Your task to perform on an android device: change your default location settings in chrome Image 0: 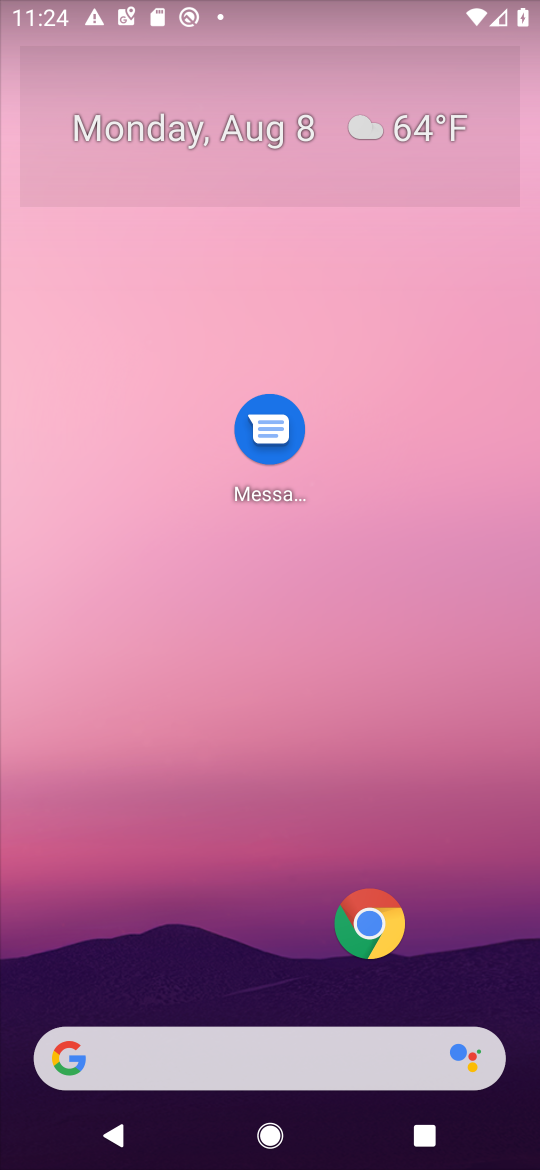
Step 0: click (361, 934)
Your task to perform on an android device: change your default location settings in chrome Image 1: 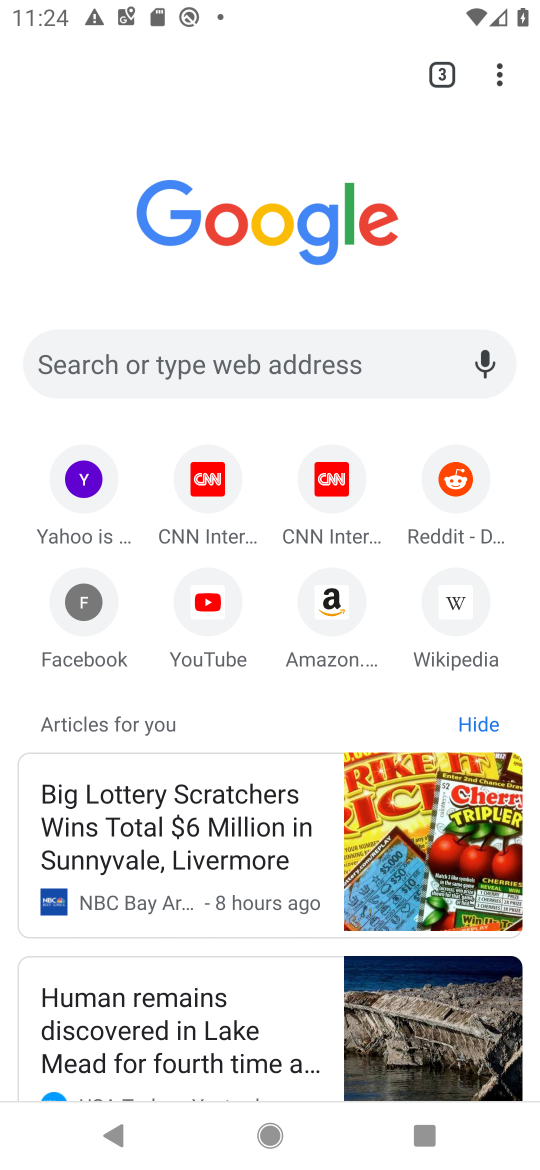
Step 1: click (502, 73)
Your task to perform on an android device: change your default location settings in chrome Image 2: 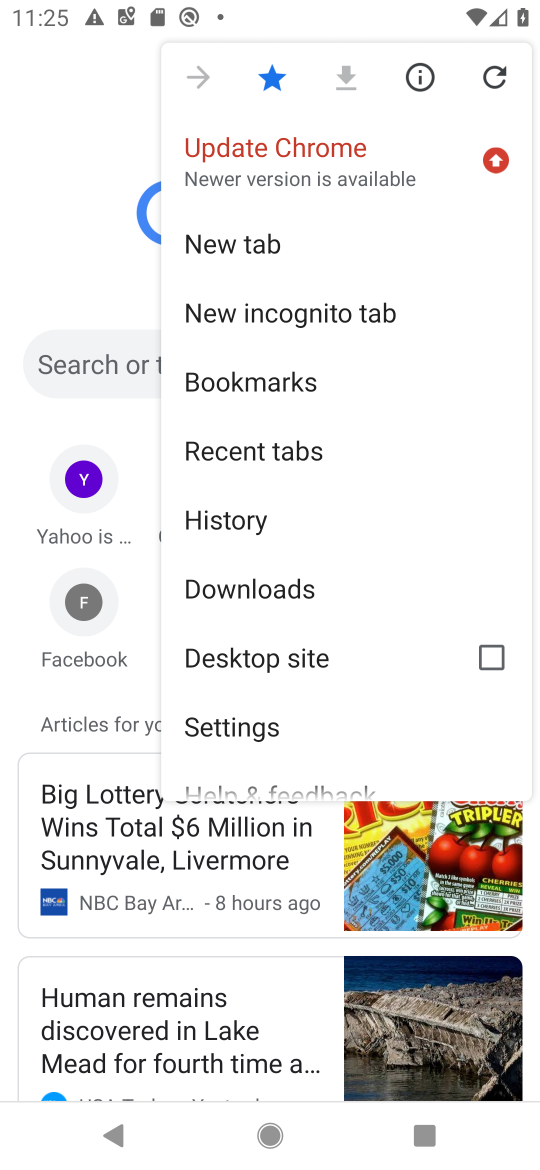
Step 2: click (257, 712)
Your task to perform on an android device: change your default location settings in chrome Image 3: 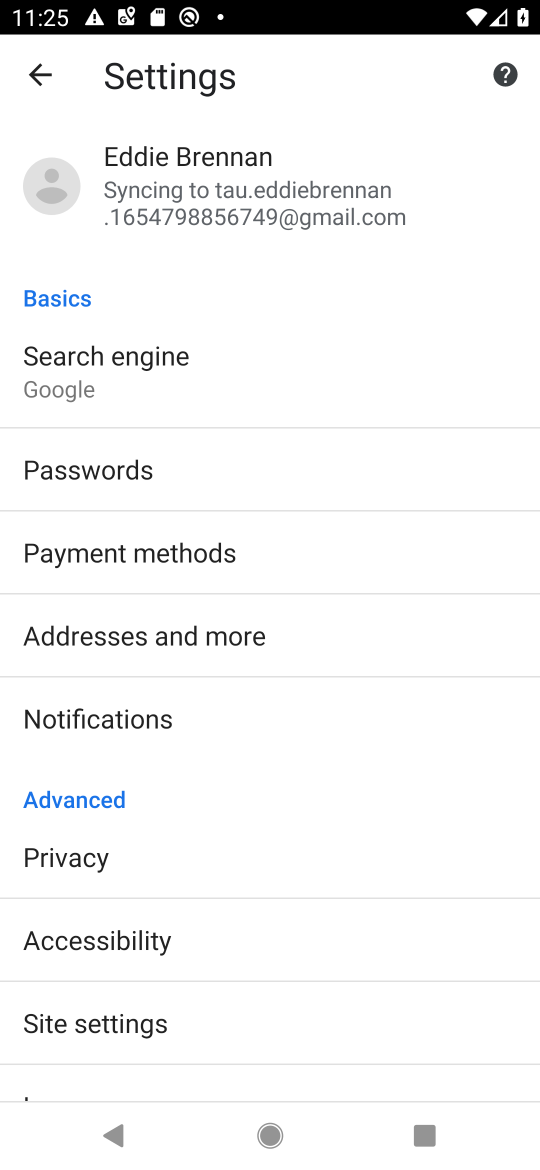
Step 3: drag from (301, 983) to (479, 191)
Your task to perform on an android device: change your default location settings in chrome Image 4: 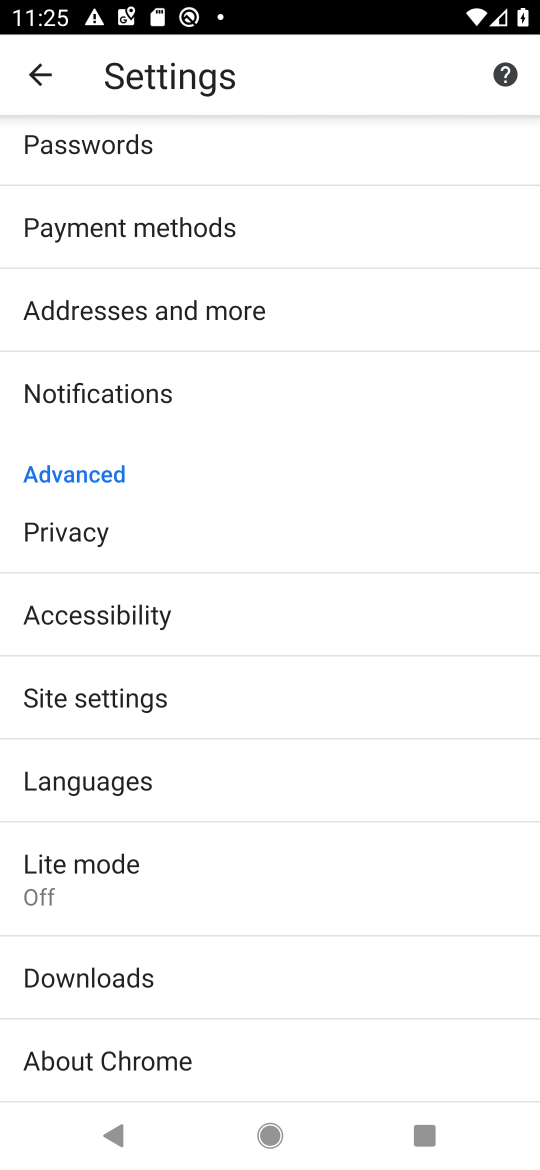
Step 4: click (150, 691)
Your task to perform on an android device: change your default location settings in chrome Image 5: 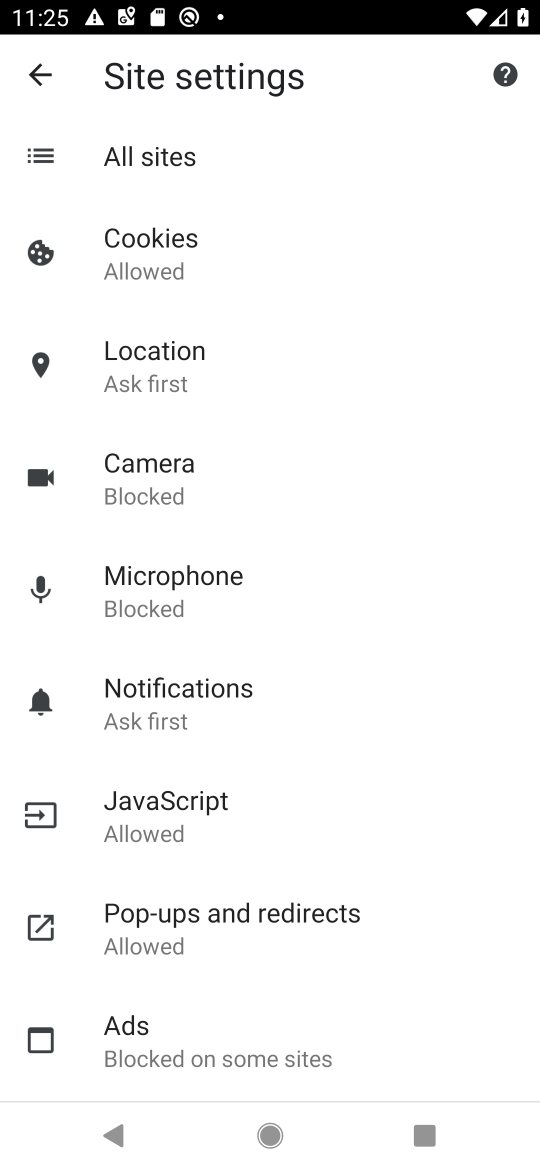
Step 5: click (175, 357)
Your task to perform on an android device: change your default location settings in chrome Image 6: 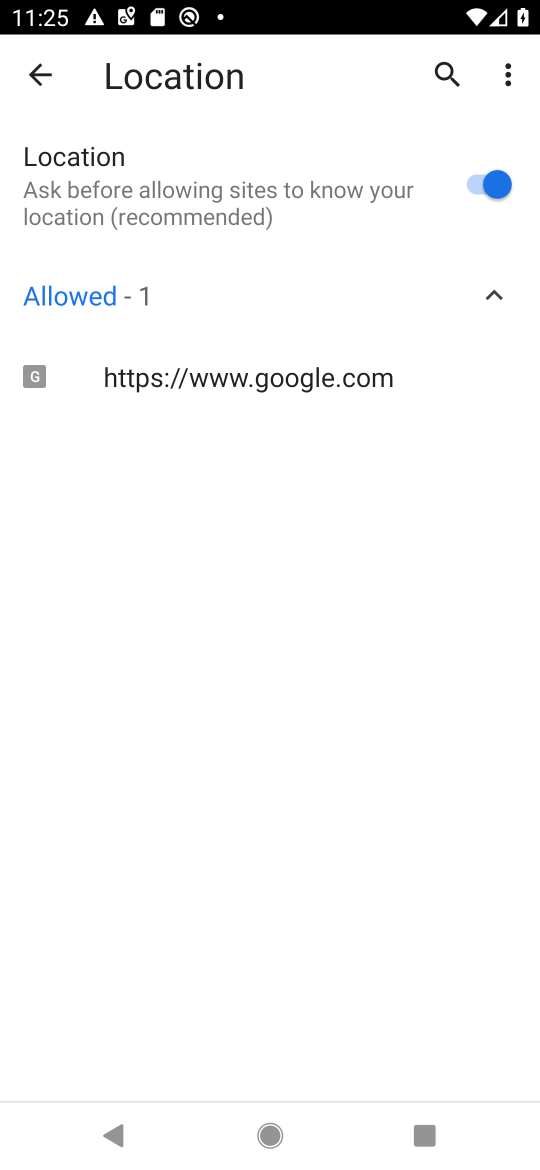
Step 6: task complete